Your task to perform on an android device: Open maps Image 0: 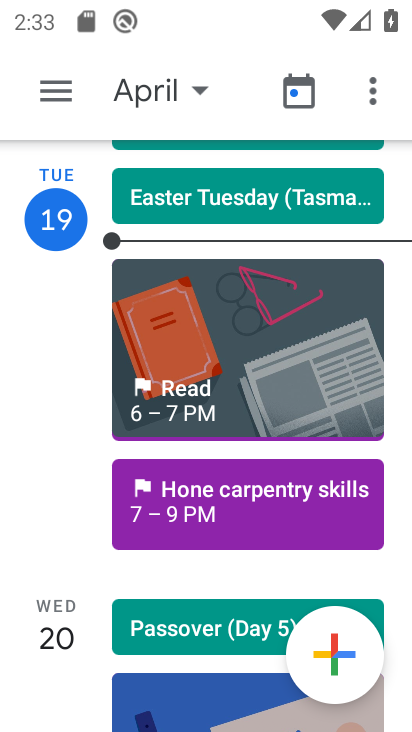
Step 0: press back button
Your task to perform on an android device: Open maps Image 1: 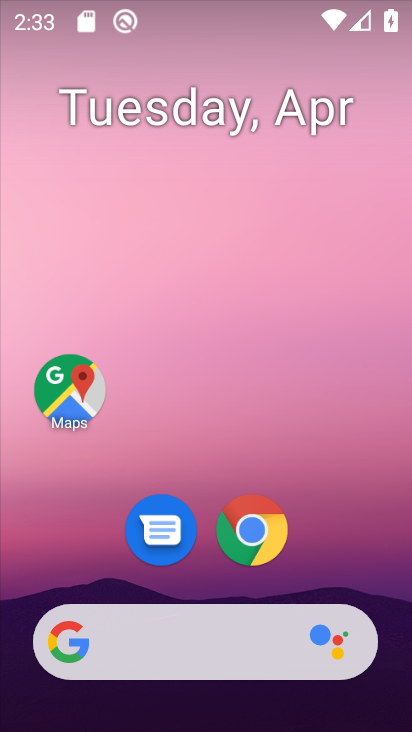
Step 1: drag from (206, 707) to (211, 94)
Your task to perform on an android device: Open maps Image 2: 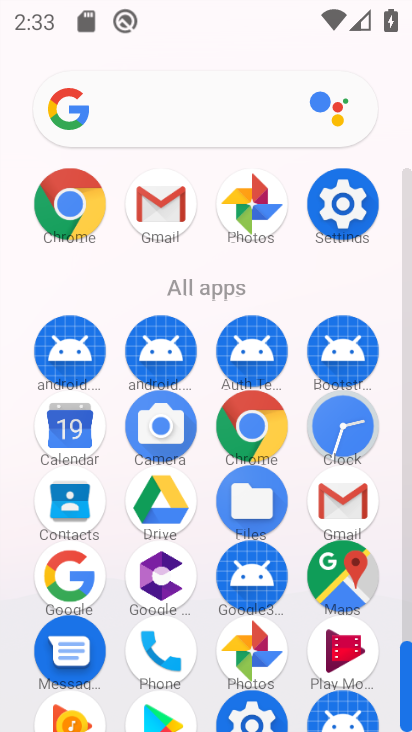
Step 2: click (347, 571)
Your task to perform on an android device: Open maps Image 3: 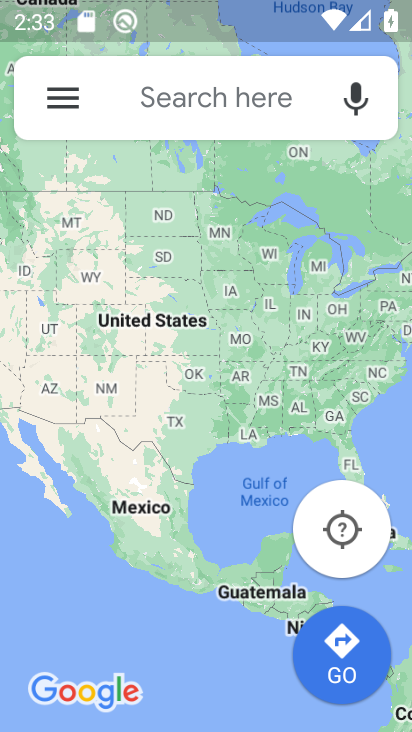
Step 3: task complete